Your task to perform on an android device: What's the weather today? Image 0: 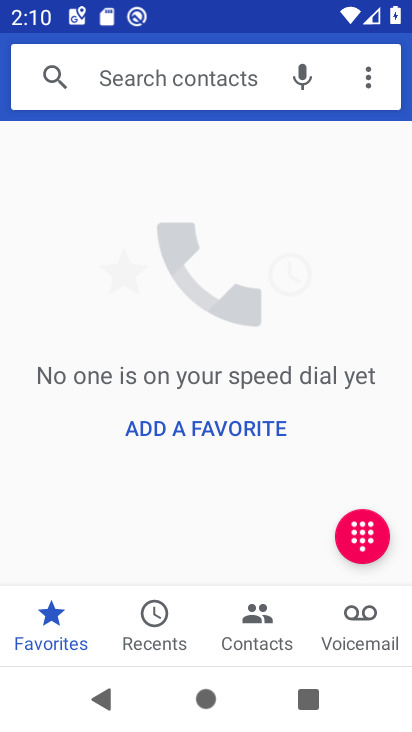
Step 0: press home button
Your task to perform on an android device: What's the weather today? Image 1: 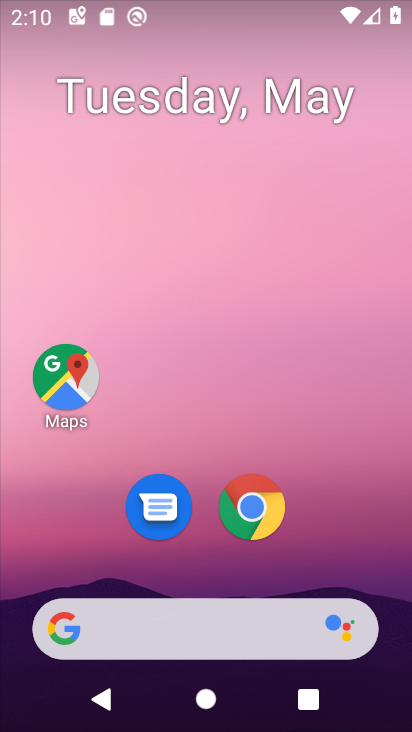
Step 1: drag from (226, 575) to (231, 275)
Your task to perform on an android device: What's the weather today? Image 2: 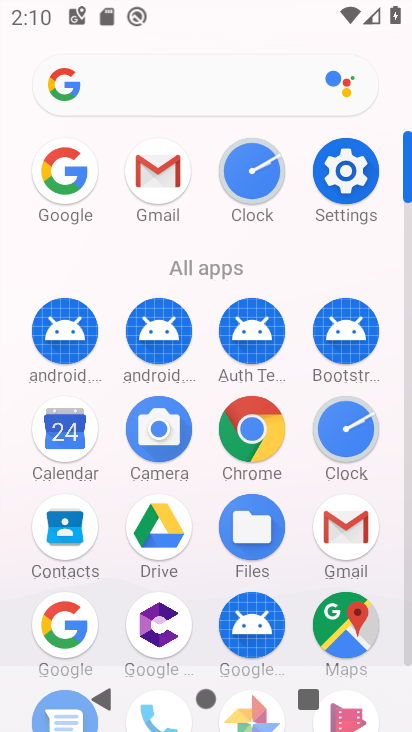
Step 2: click (61, 634)
Your task to perform on an android device: What's the weather today? Image 3: 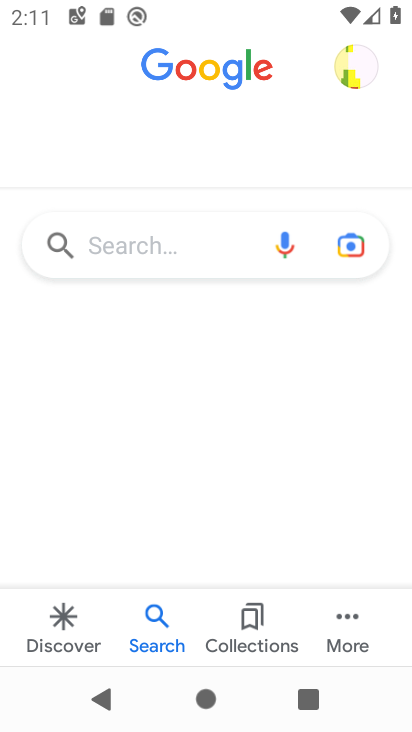
Step 3: click (181, 246)
Your task to perform on an android device: What's the weather today? Image 4: 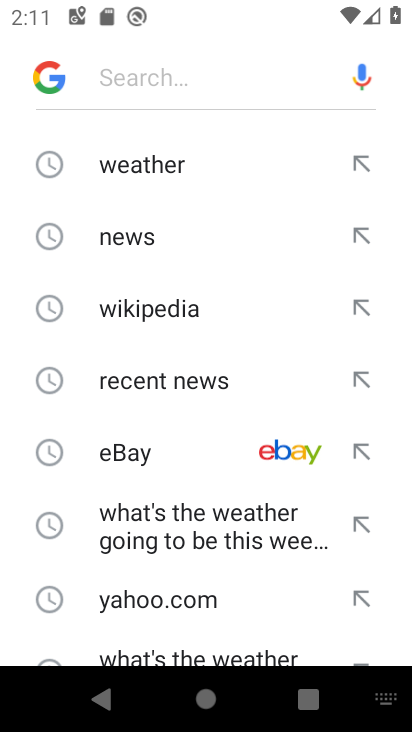
Step 4: click (155, 165)
Your task to perform on an android device: What's the weather today? Image 5: 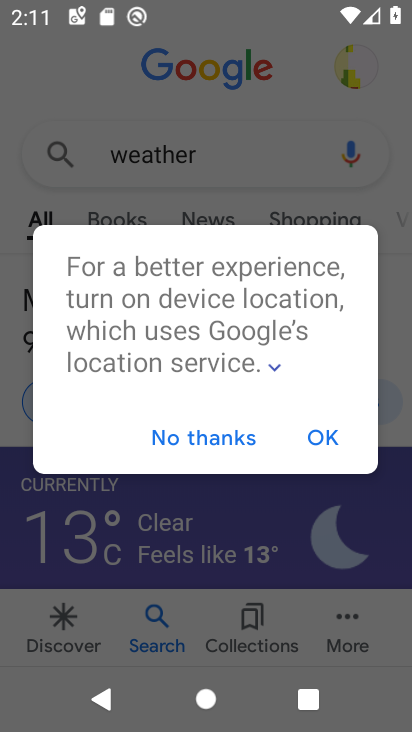
Step 5: click (229, 433)
Your task to perform on an android device: What's the weather today? Image 6: 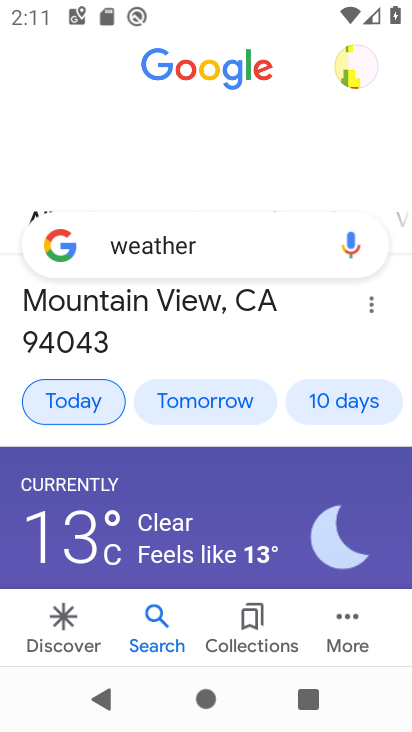
Step 6: click (97, 403)
Your task to perform on an android device: What's the weather today? Image 7: 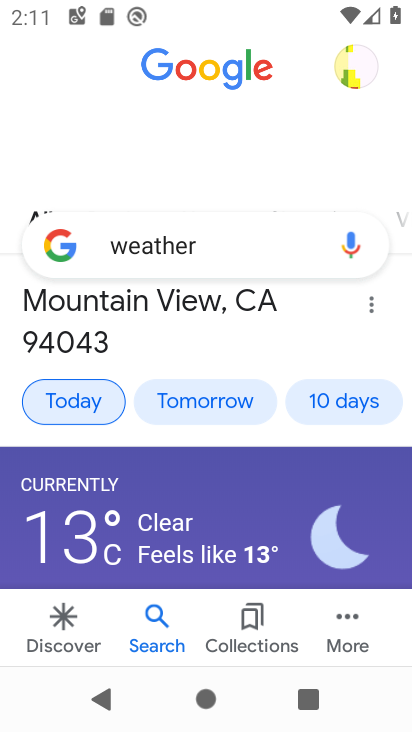
Step 7: task complete